Your task to perform on an android device: What's the weather? Image 0: 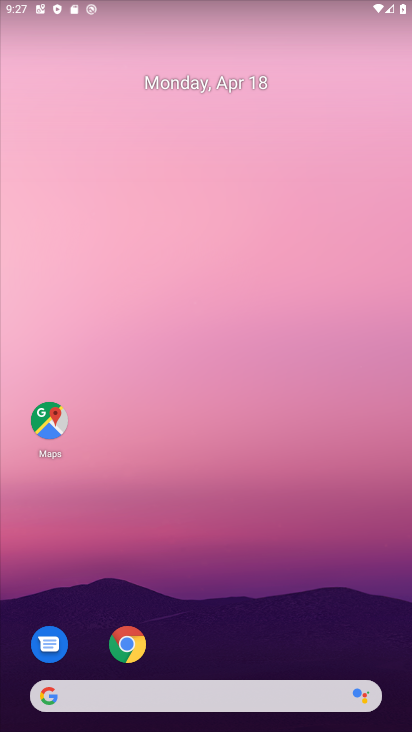
Step 0: click (218, 678)
Your task to perform on an android device: What's the weather? Image 1: 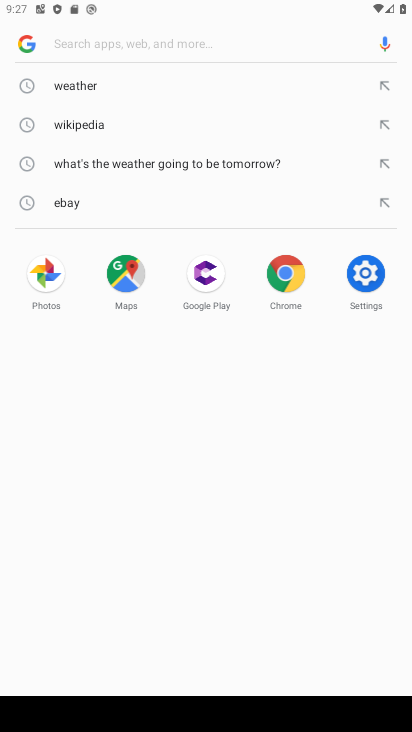
Step 1: click (84, 80)
Your task to perform on an android device: What's the weather? Image 2: 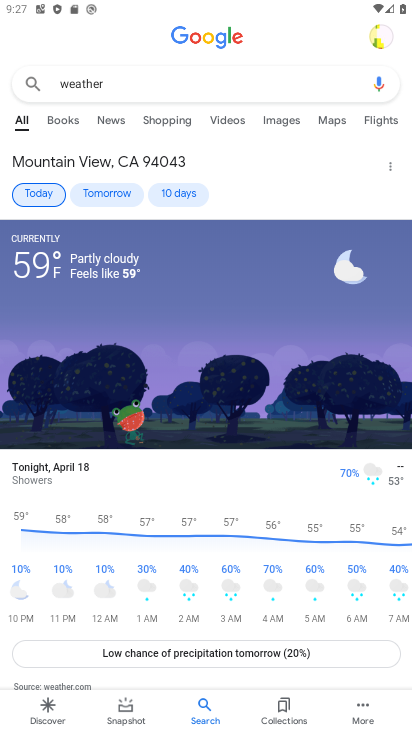
Step 2: task complete